Your task to perform on an android device: Go to settings Image 0: 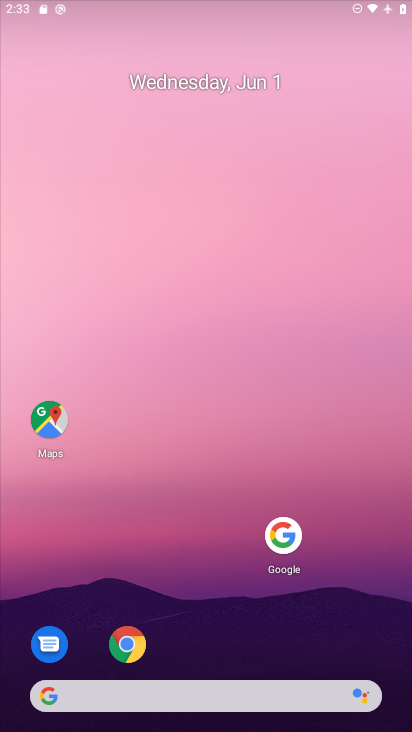
Step 0: press home button
Your task to perform on an android device: Go to settings Image 1: 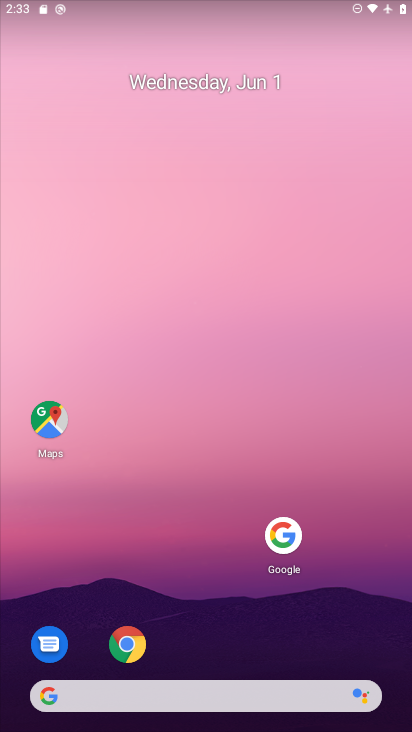
Step 1: drag from (262, 680) to (332, 134)
Your task to perform on an android device: Go to settings Image 2: 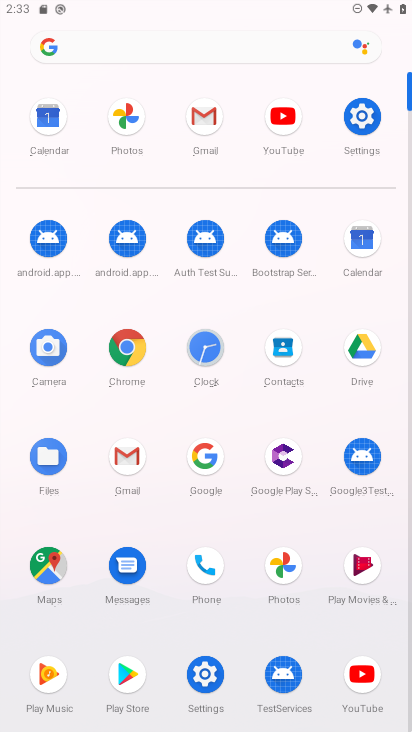
Step 2: click (366, 112)
Your task to perform on an android device: Go to settings Image 3: 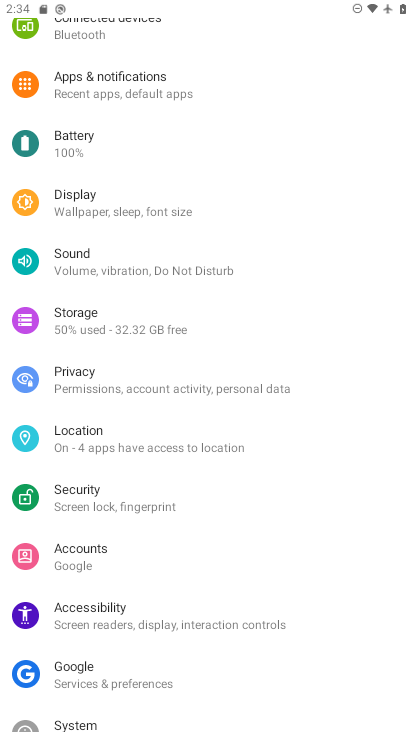
Step 3: task complete